Your task to perform on an android device: turn off sleep mode Image 0: 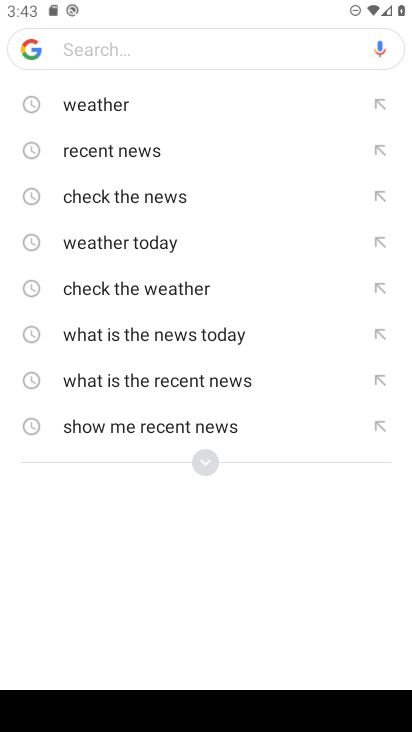
Step 0: press back button
Your task to perform on an android device: turn off sleep mode Image 1: 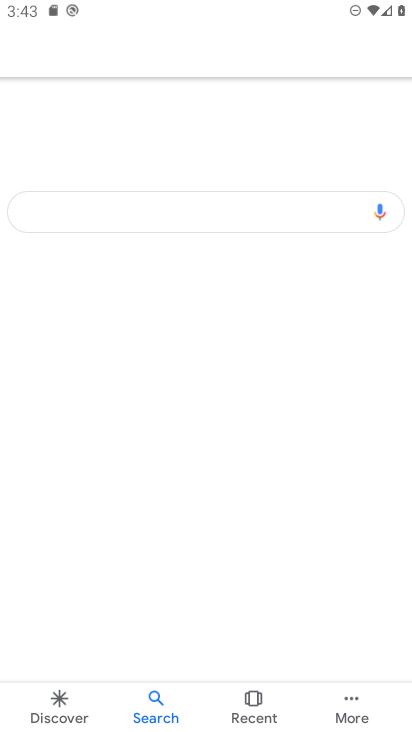
Step 1: press back button
Your task to perform on an android device: turn off sleep mode Image 2: 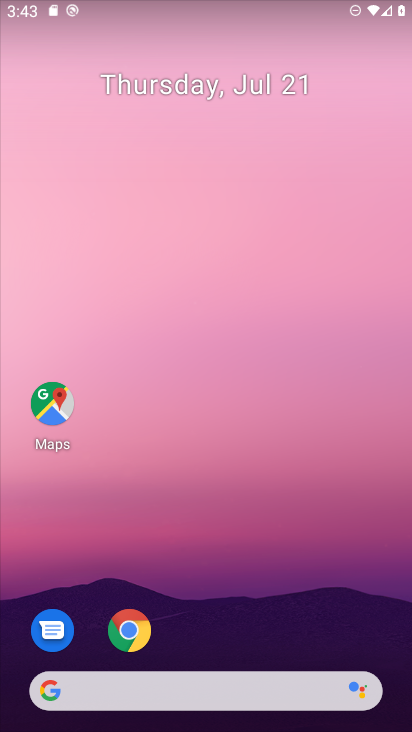
Step 2: drag from (219, 627) to (218, 47)
Your task to perform on an android device: turn off sleep mode Image 3: 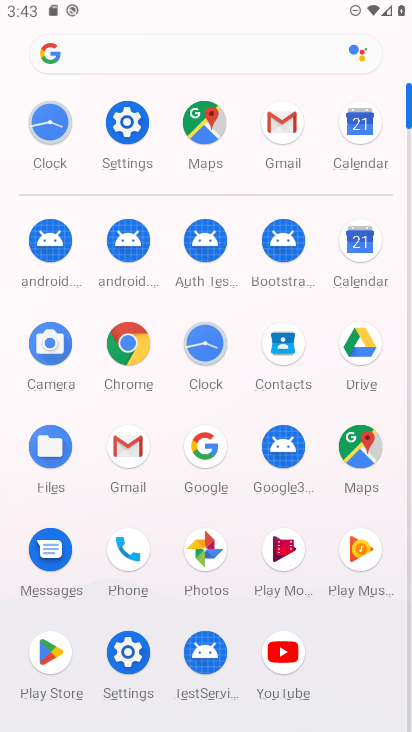
Step 3: click (139, 134)
Your task to perform on an android device: turn off sleep mode Image 4: 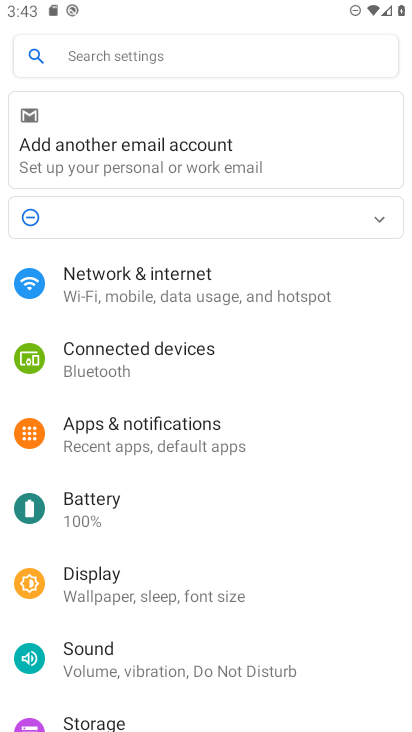
Step 4: click (80, 57)
Your task to perform on an android device: turn off sleep mode Image 5: 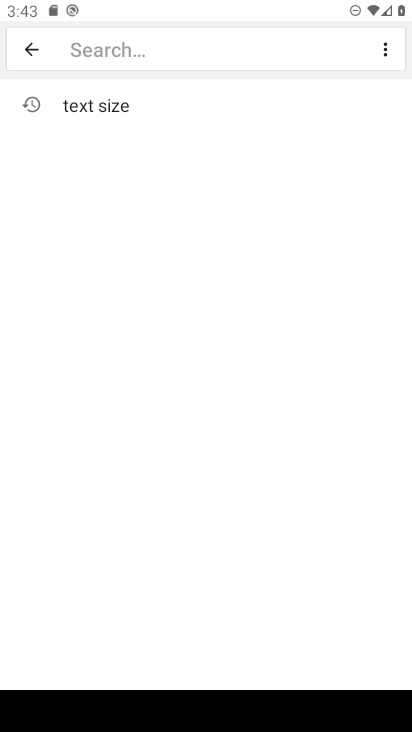
Step 5: type "sleep mode"
Your task to perform on an android device: turn off sleep mode Image 6: 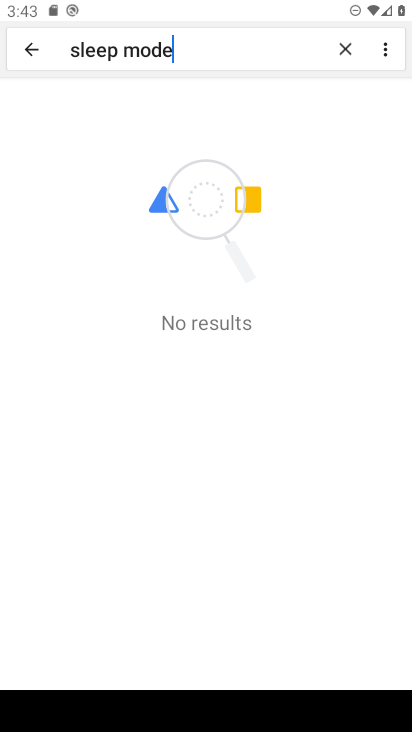
Step 6: task complete